Your task to perform on an android device: Do I have any events this weekend? Image 0: 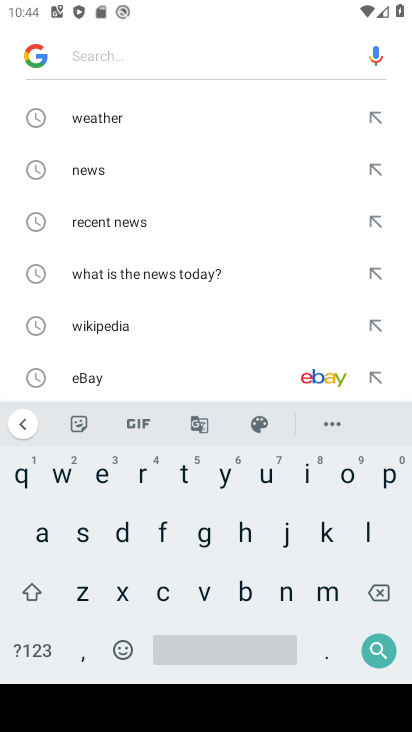
Step 0: press home button
Your task to perform on an android device: Do I have any events this weekend? Image 1: 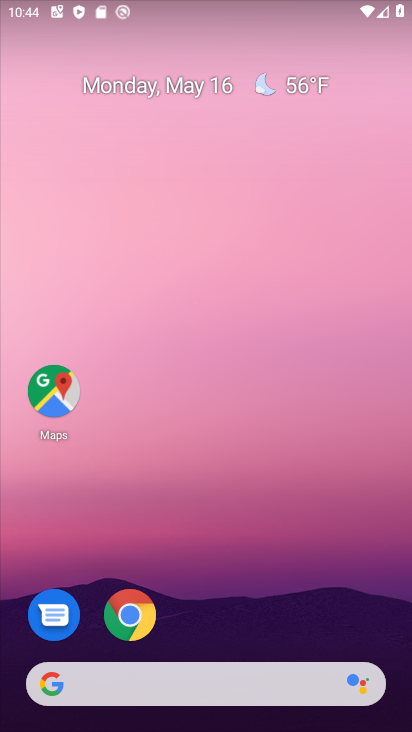
Step 1: drag from (264, 674) to (224, 288)
Your task to perform on an android device: Do I have any events this weekend? Image 2: 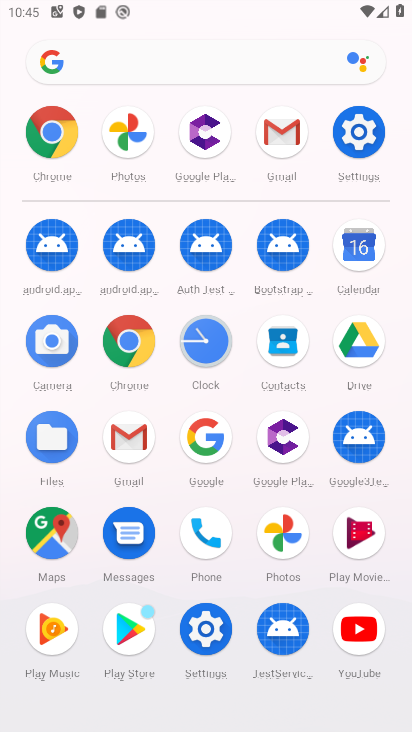
Step 2: click (339, 260)
Your task to perform on an android device: Do I have any events this weekend? Image 3: 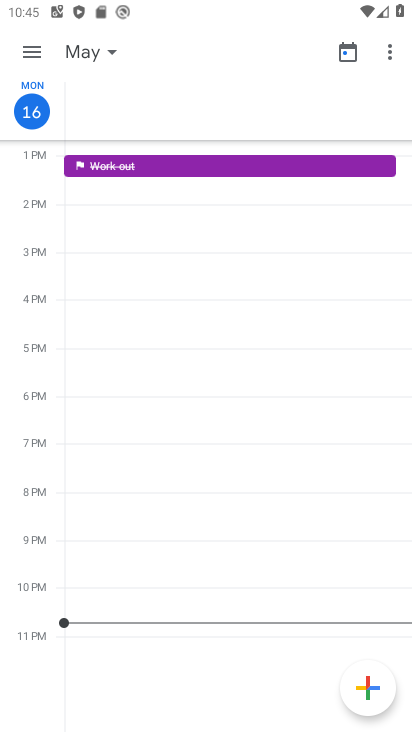
Step 3: click (31, 104)
Your task to perform on an android device: Do I have any events this weekend? Image 4: 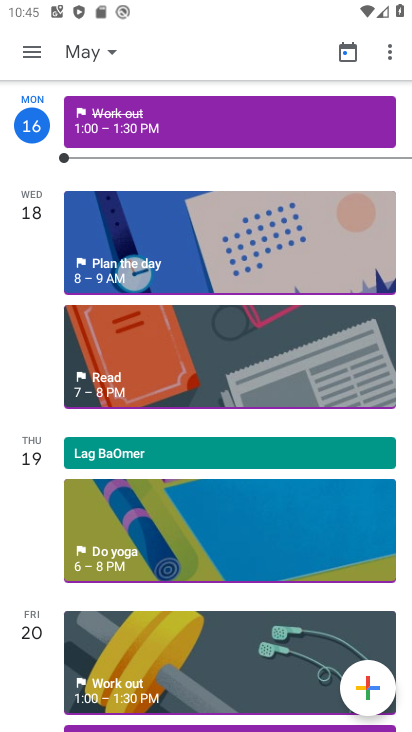
Step 4: click (48, 47)
Your task to perform on an android device: Do I have any events this weekend? Image 5: 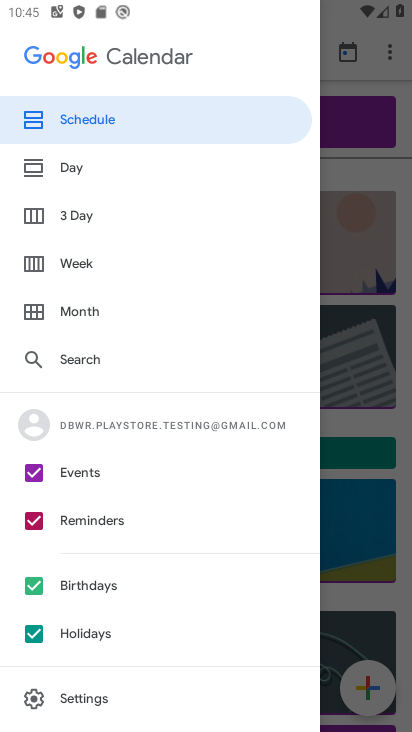
Step 5: click (86, 257)
Your task to perform on an android device: Do I have any events this weekend? Image 6: 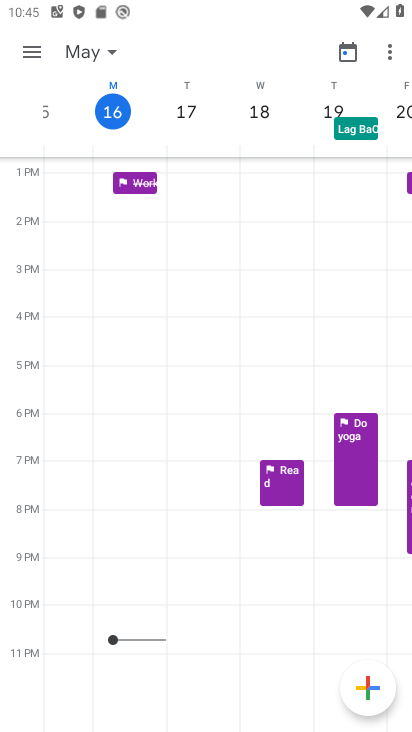
Step 6: task complete